Your task to perform on an android device: Open sound settings Image 0: 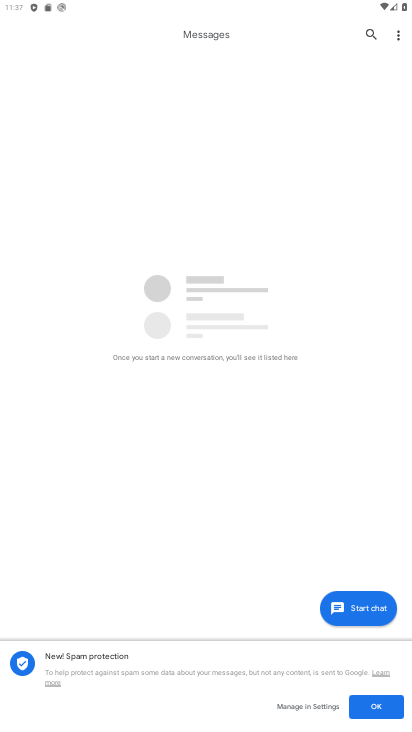
Step 0: press home button
Your task to perform on an android device: Open sound settings Image 1: 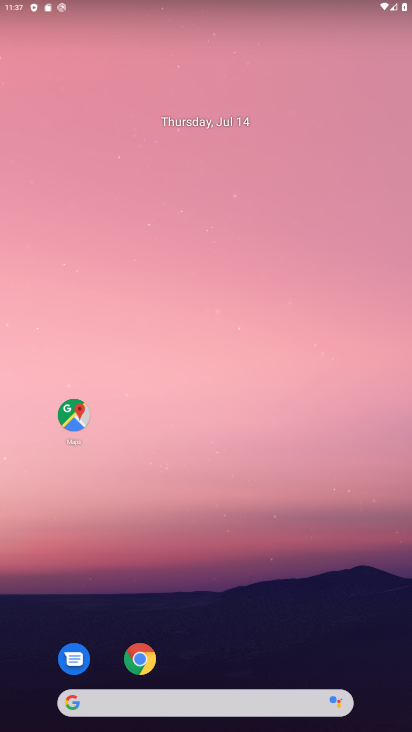
Step 1: drag from (240, 616) to (277, 256)
Your task to perform on an android device: Open sound settings Image 2: 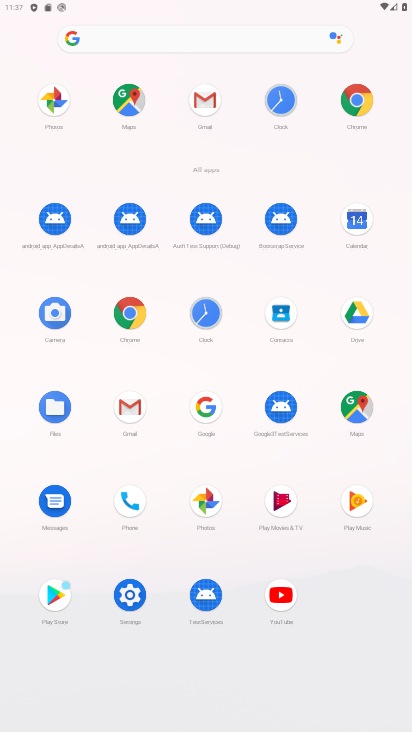
Step 2: click (128, 594)
Your task to perform on an android device: Open sound settings Image 3: 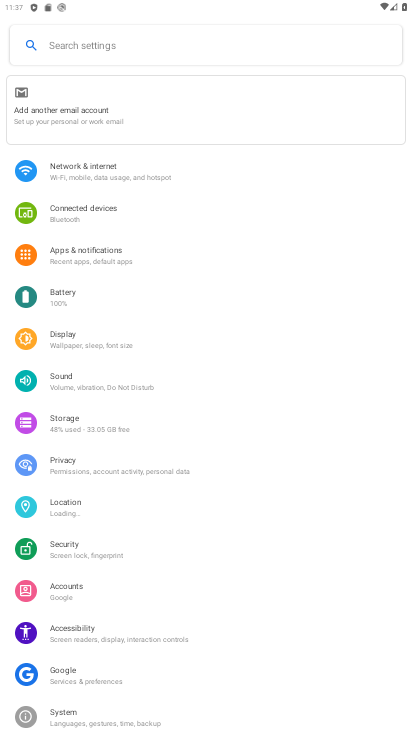
Step 3: click (120, 390)
Your task to perform on an android device: Open sound settings Image 4: 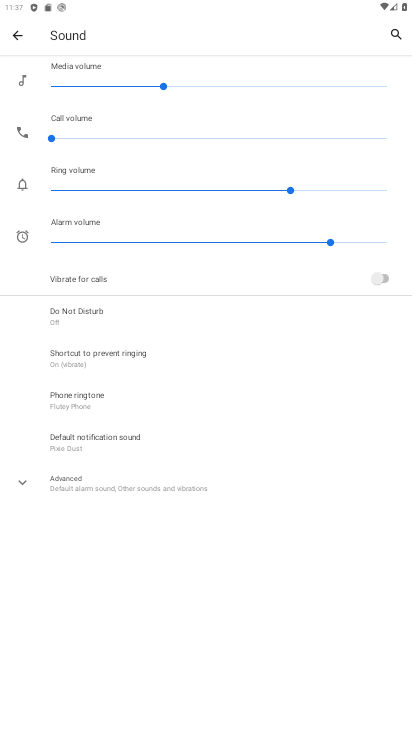
Step 4: task complete